Your task to perform on an android device: toggle notifications settings in the gmail app Image 0: 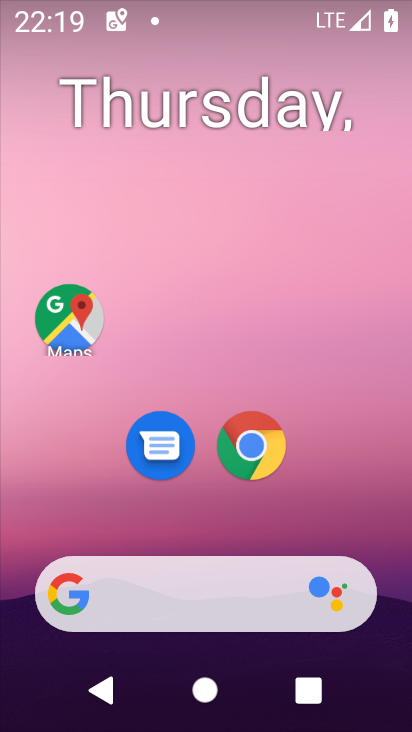
Step 0: drag from (231, 547) to (311, 190)
Your task to perform on an android device: toggle notifications settings in the gmail app Image 1: 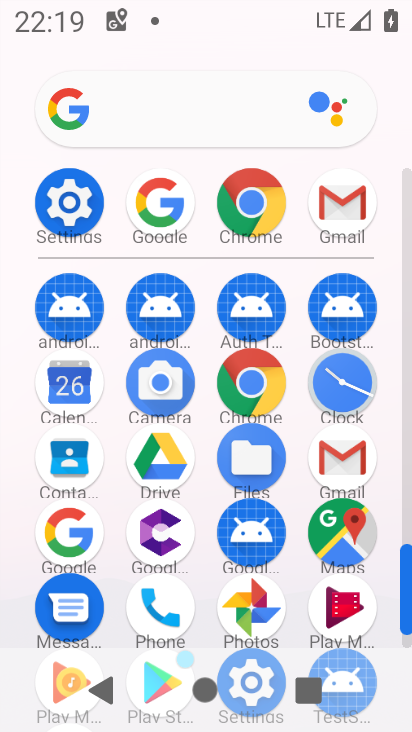
Step 1: drag from (205, 255) to (222, 106)
Your task to perform on an android device: toggle notifications settings in the gmail app Image 2: 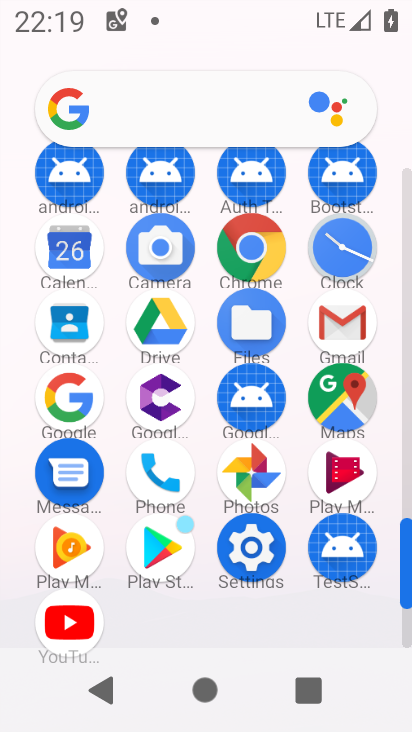
Step 2: click (267, 554)
Your task to perform on an android device: toggle notifications settings in the gmail app Image 3: 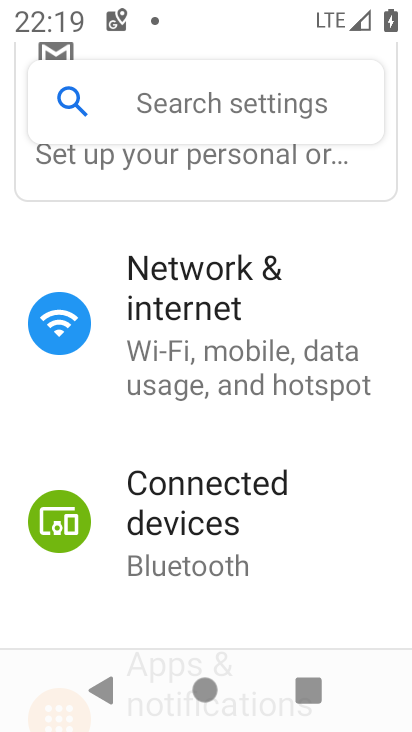
Step 3: drag from (245, 539) to (249, 289)
Your task to perform on an android device: toggle notifications settings in the gmail app Image 4: 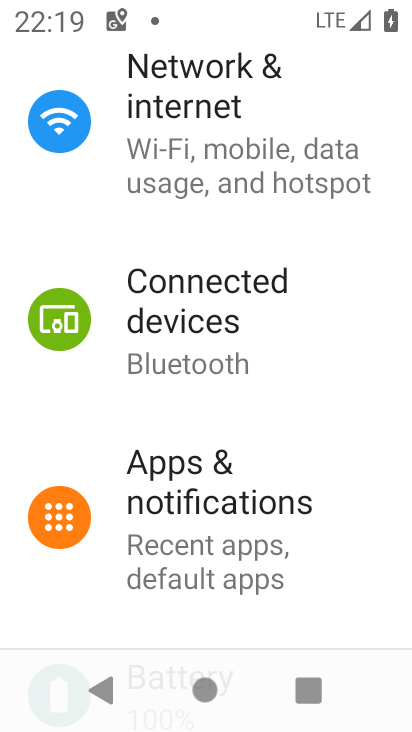
Step 4: click (232, 525)
Your task to perform on an android device: toggle notifications settings in the gmail app Image 5: 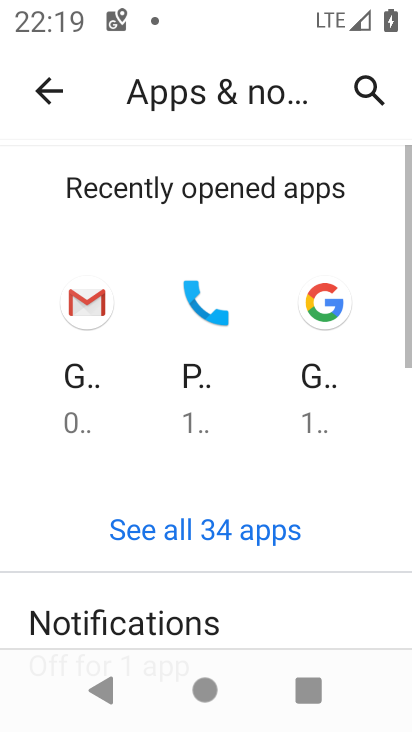
Step 5: drag from (218, 590) to (267, 290)
Your task to perform on an android device: toggle notifications settings in the gmail app Image 6: 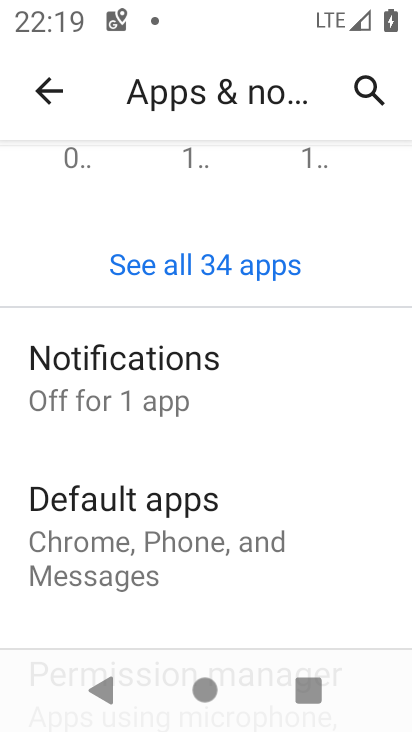
Step 6: click (231, 405)
Your task to perform on an android device: toggle notifications settings in the gmail app Image 7: 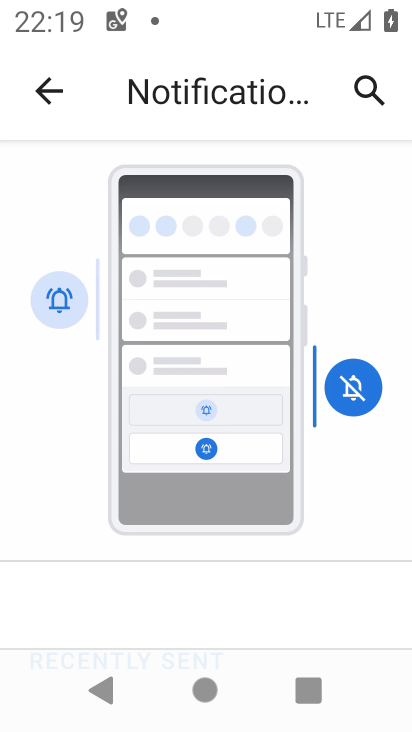
Step 7: task complete